Your task to perform on an android device: install app "Microsoft Excel" Image 0: 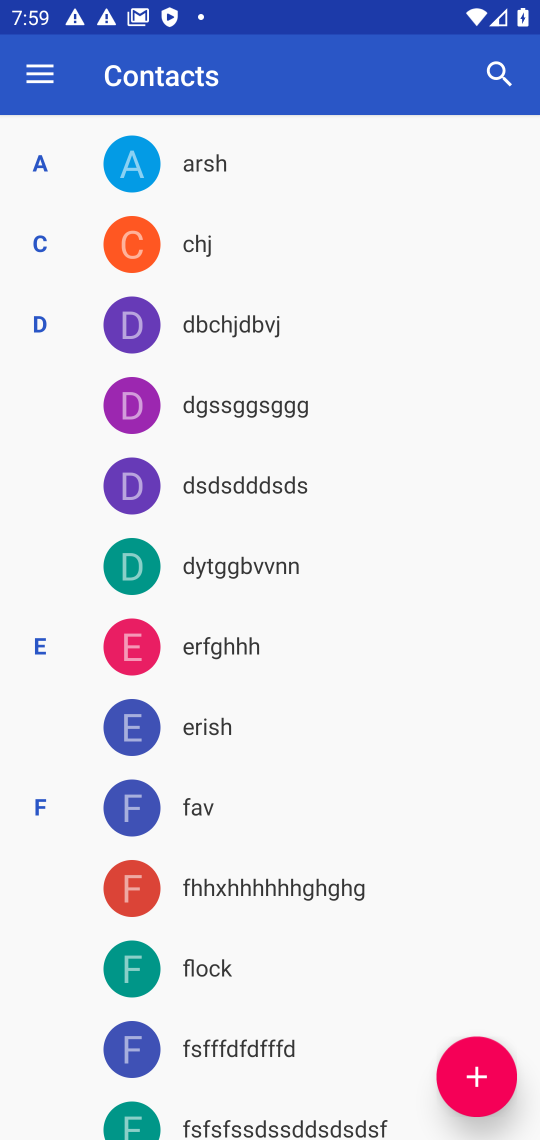
Step 0: press home button
Your task to perform on an android device: install app "Microsoft Excel" Image 1: 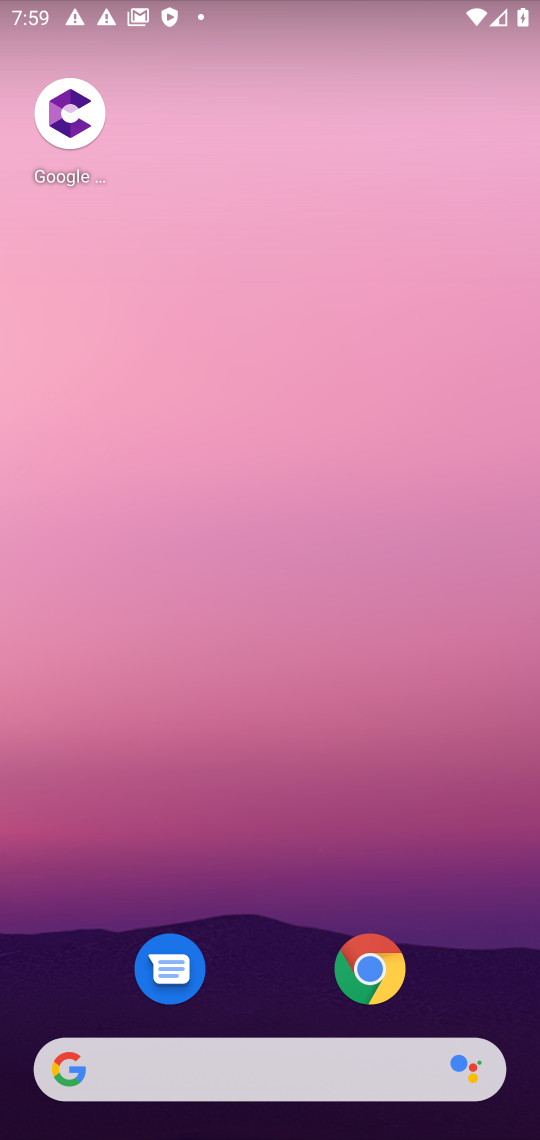
Step 1: drag from (243, 622) to (250, 27)
Your task to perform on an android device: install app "Microsoft Excel" Image 2: 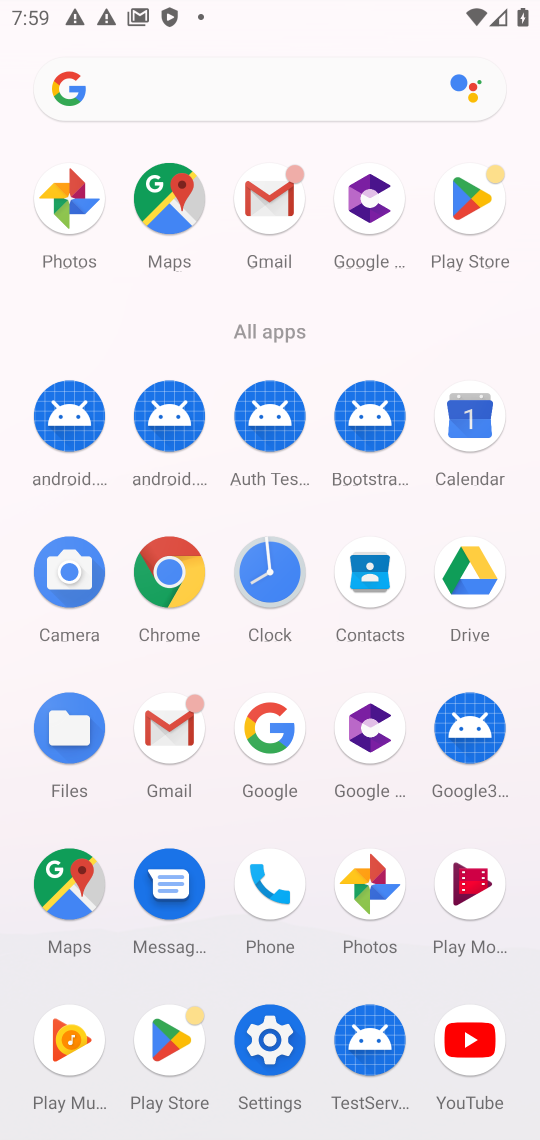
Step 2: click (446, 211)
Your task to perform on an android device: install app "Microsoft Excel" Image 3: 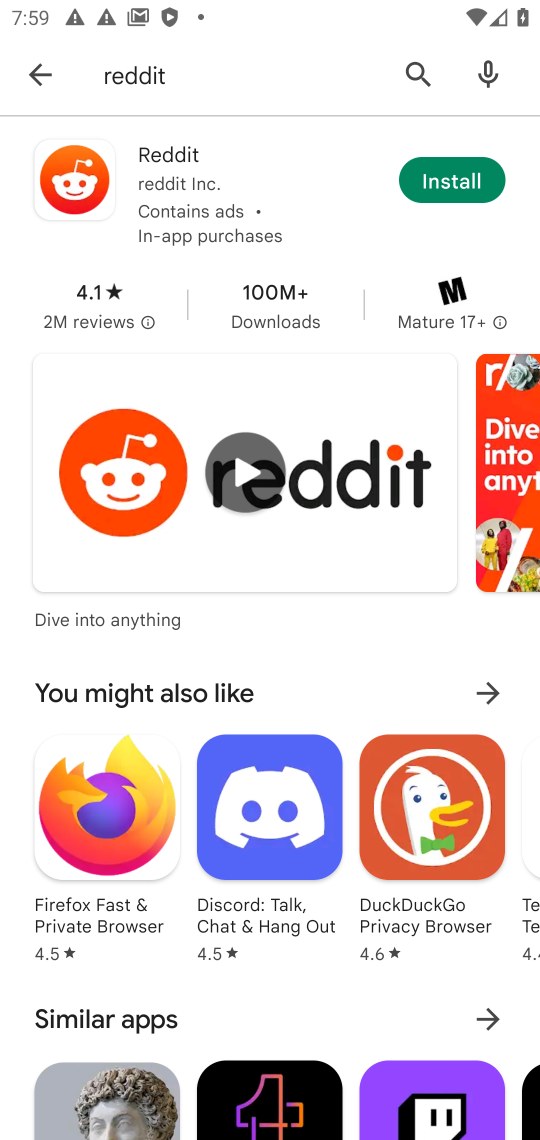
Step 3: click (29, 78)
Your task to perform on an android device: install app "Microsoft Excel" Image 4: 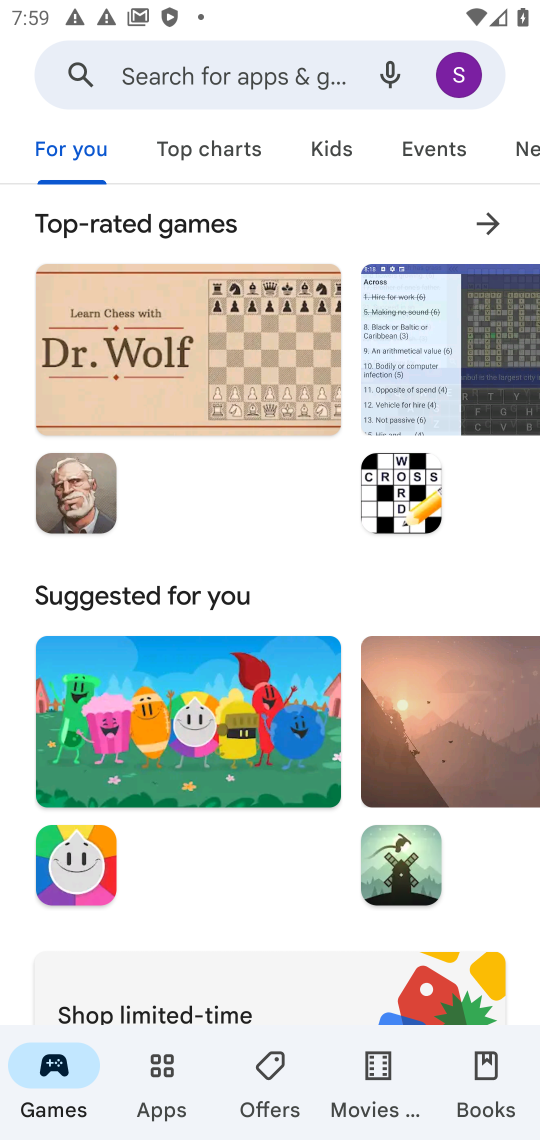
Step 4: click (233, 64)
Your task to perform on an android device: install app "Microsoft Excel" Image 5: 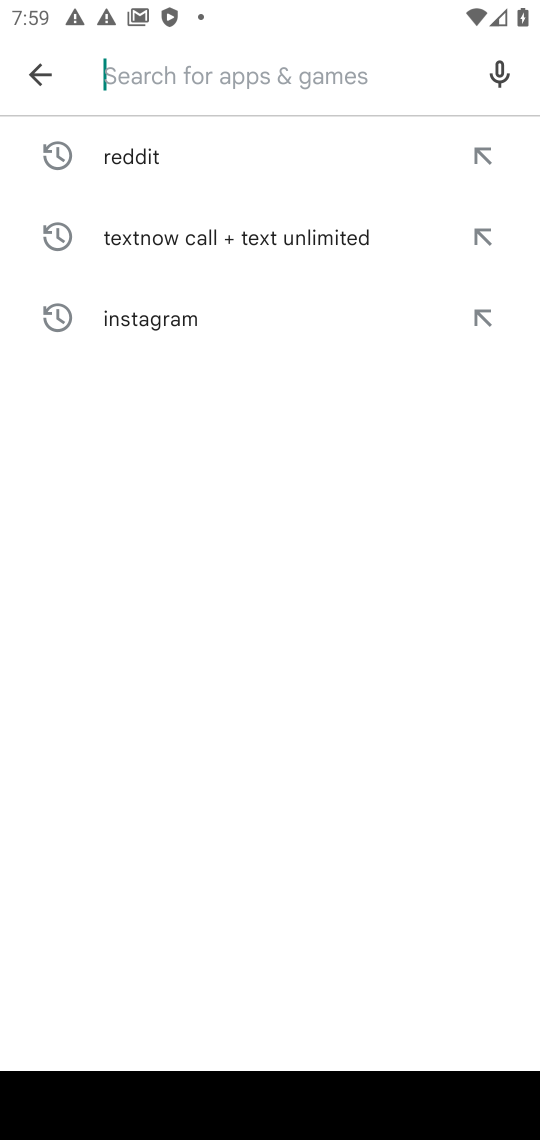
Step 5: type "Microsoft Excel"
Your task to perform on an android device: install app "Microsoft Excel" Image 6: 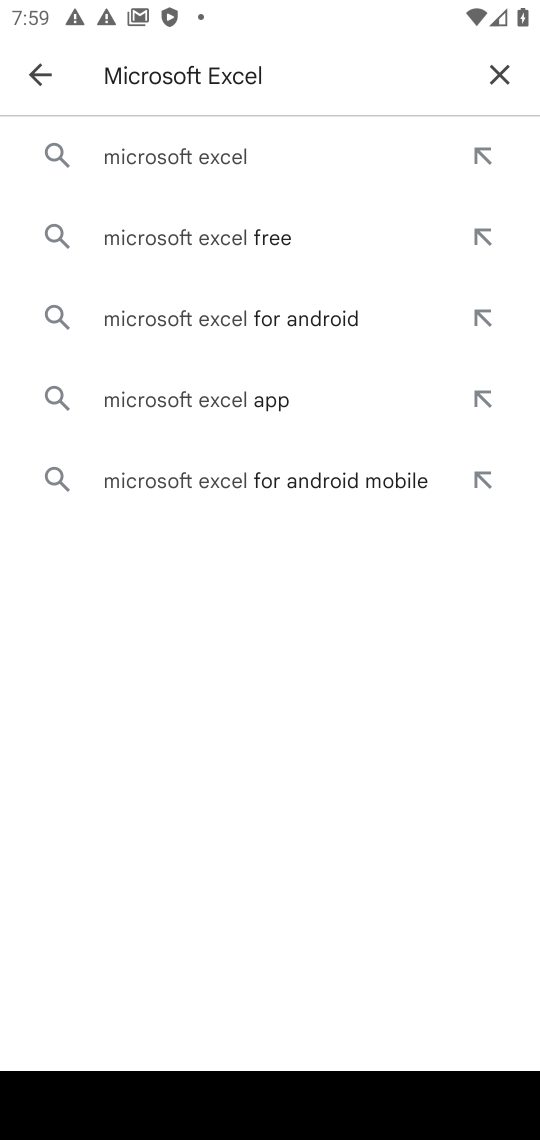
Step 6: click (196, 150)
Your task to perform on an android device: install app "Microsoft Excel" Image 7: 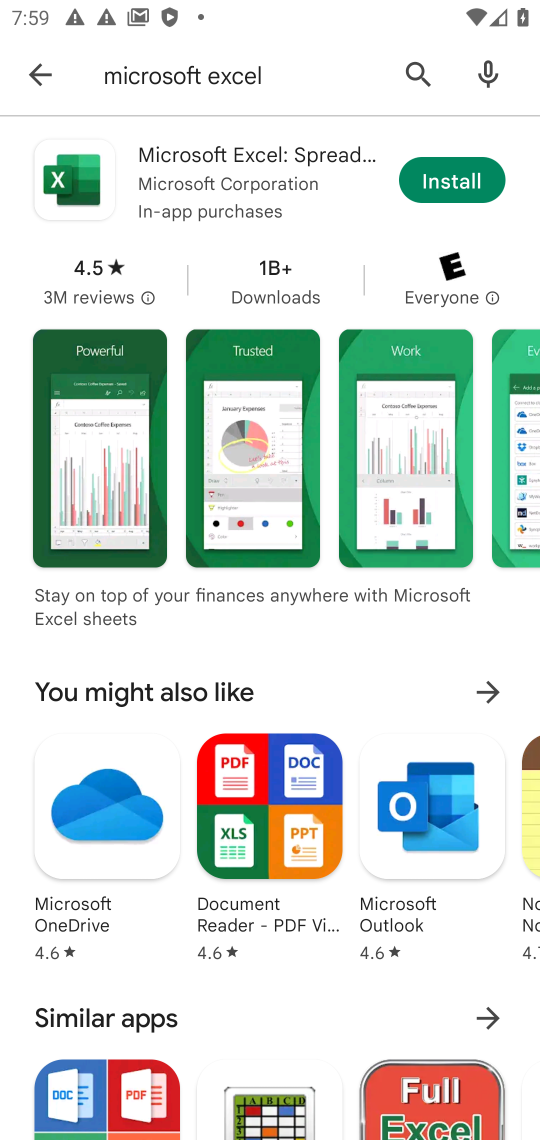
Step 7: click (465, 182)
Your task to perform on an android device: install app "Microsoft Excel" Image 8: 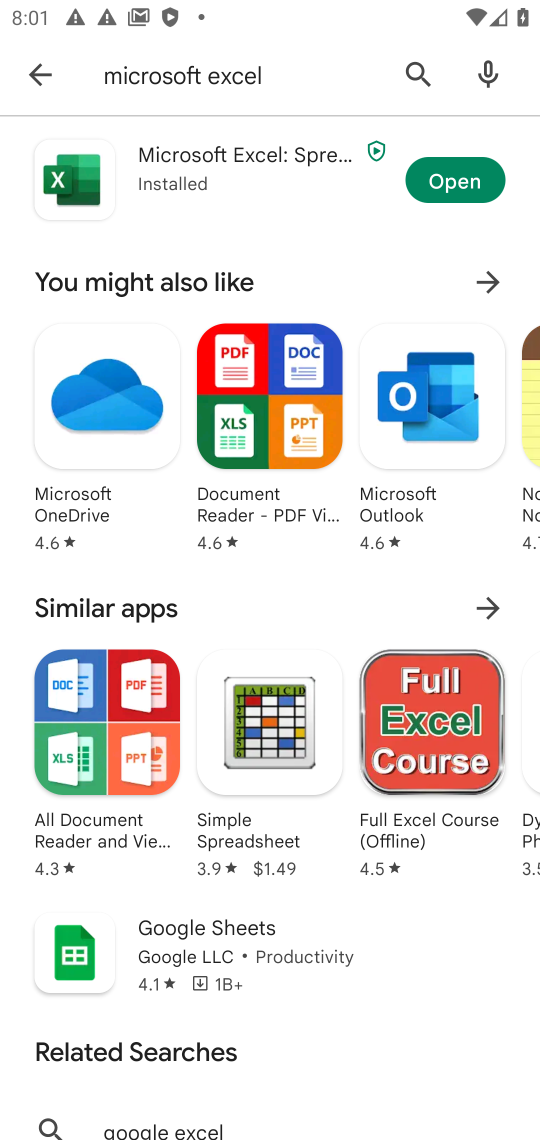
Step 8: click (459, 185)
Your task to perform on an android device: install app "Microsoft Excel" Image 9: 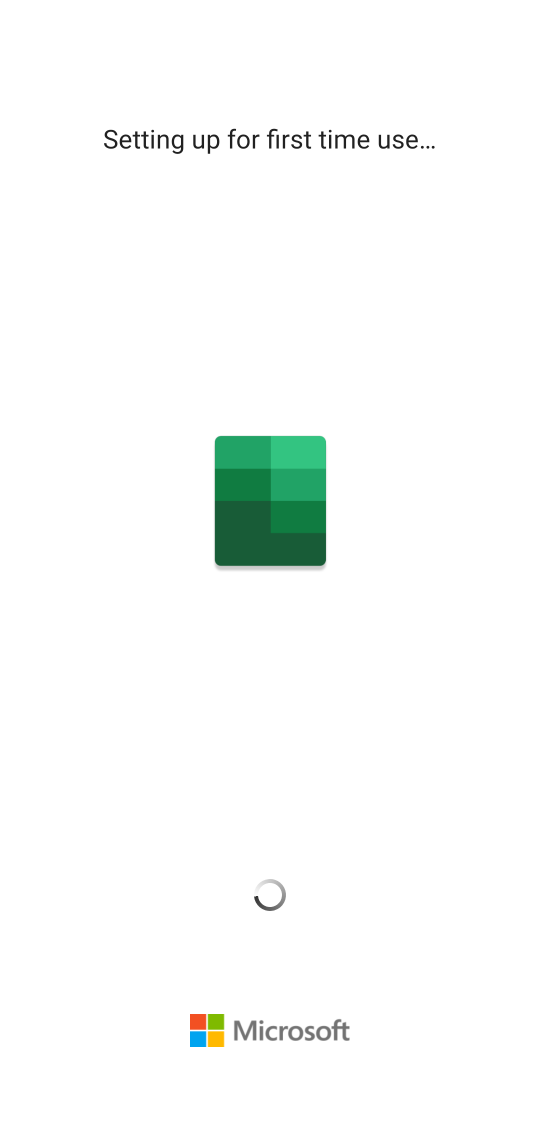
Step 9: task complete